Your task to perform on an android device: toggle show notifications on the lock screen Image 0: 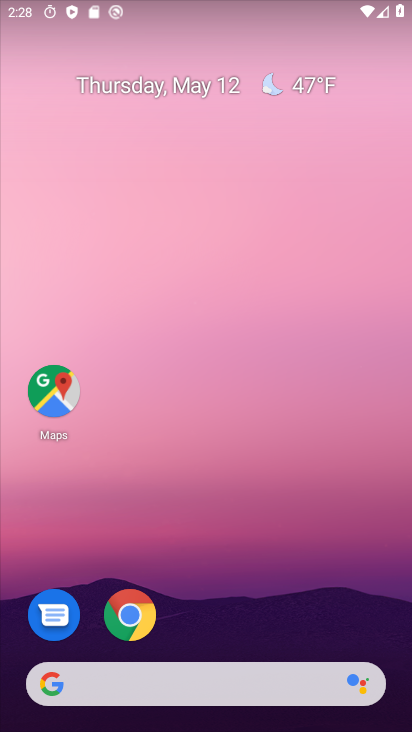
Step 0: drag from (217, 602) to (252, 1)
Your task to perform on an android device: toggle show notifications on the lock screen Image 1: 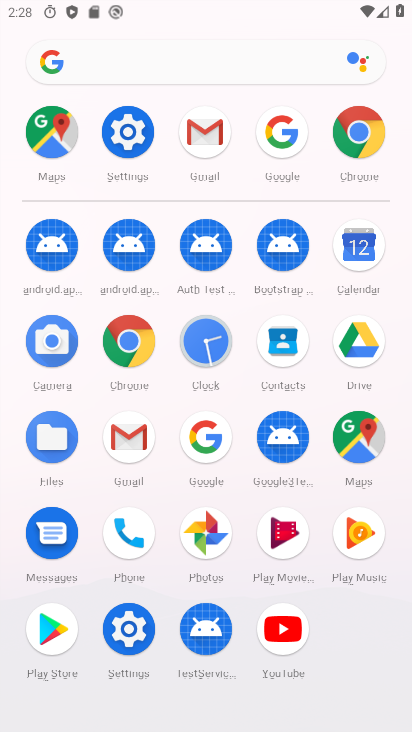
Step 1: click (131, 124)
Your task to perform on an android device: toggle show notifications on the lock screen Image 2: 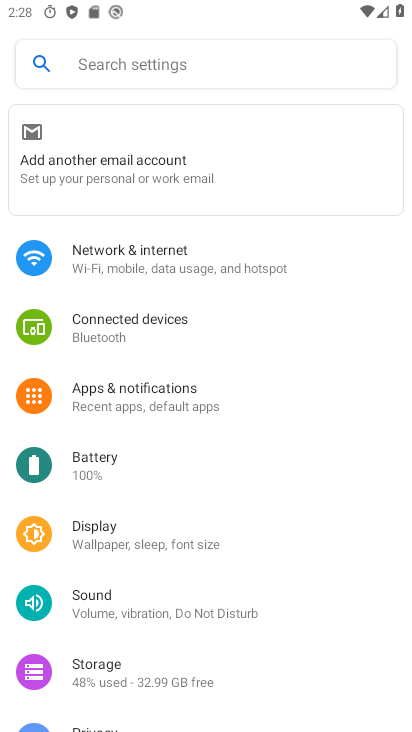
Step 2: drag from (157, 584) to (201, 140)
Your task to perform on an android device: toggle show notifications on the lock screen Image 3: 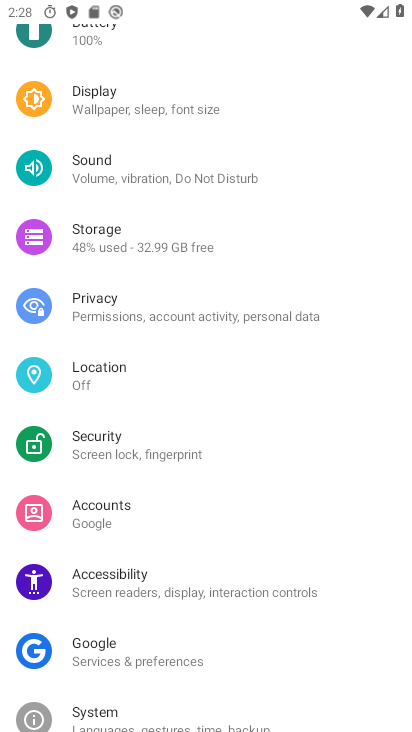
Step 3: drag from (138, 166) to (153, 543)
Your task to perform on an android device: toggle show notifications on the lock screen Image 4: 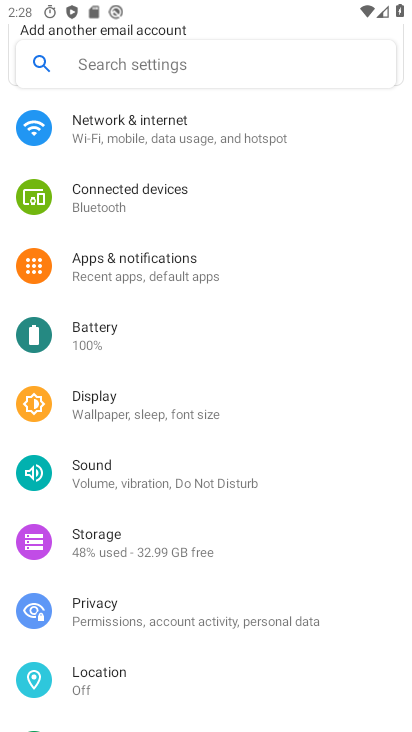
Step 4: click (128, 259)
Your task to perform on an android device: toggle show notifications on the lock screen Image 5: 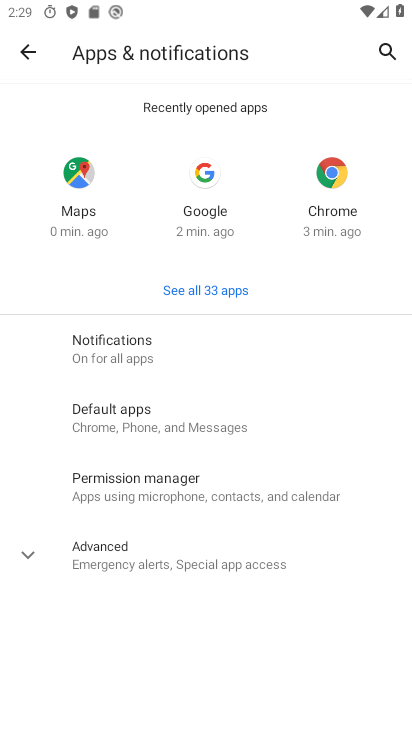
Step 5: click (149, 362)
Your task to perform on an android device: toggle show notifications on the lock screen Image 6: 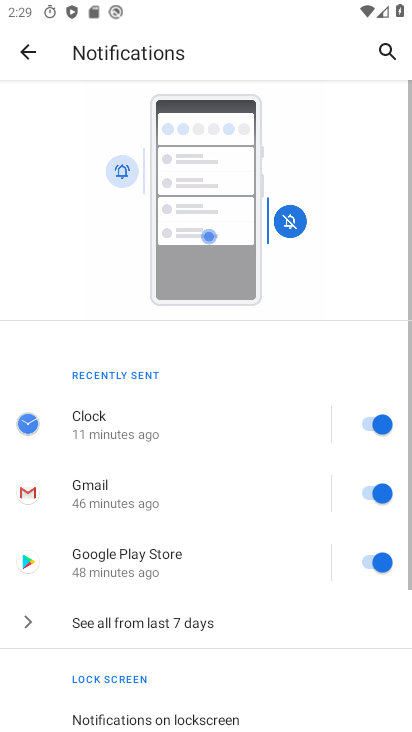
Step 6: drag from (228, 610) to (222, 46)
Your task to perform on an android device: toggle show notifications on the lock screen Image 7: 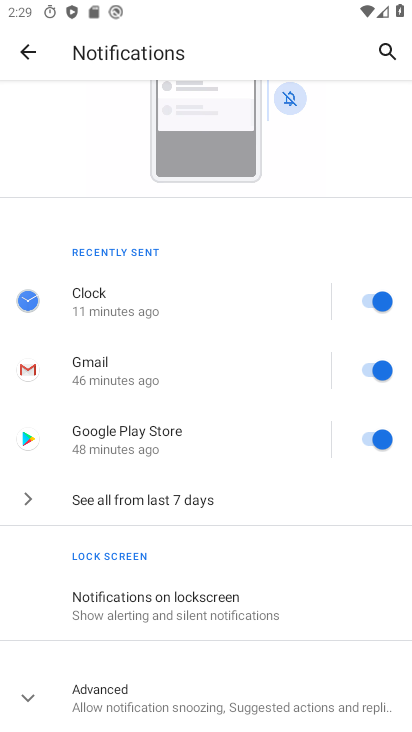
Step 7: click (198, 615)
Your task to perform on an android device: toggle show notifications on the lock screen Image 8: 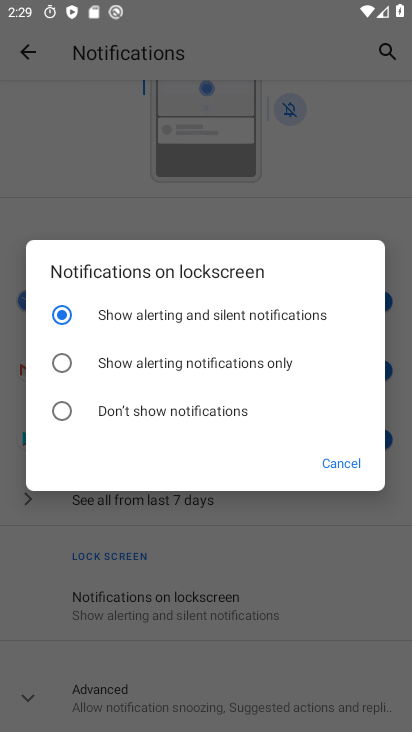
Step 8: click (63, 413)
Your task to perform on an android device: toggle show notifications on the lock screen Image 9: 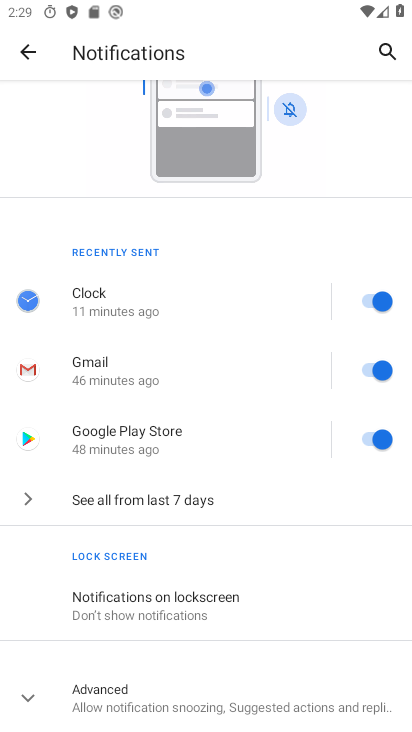
Step 9: task complete